Your task to perform on an android device: Install the News app Image 0: 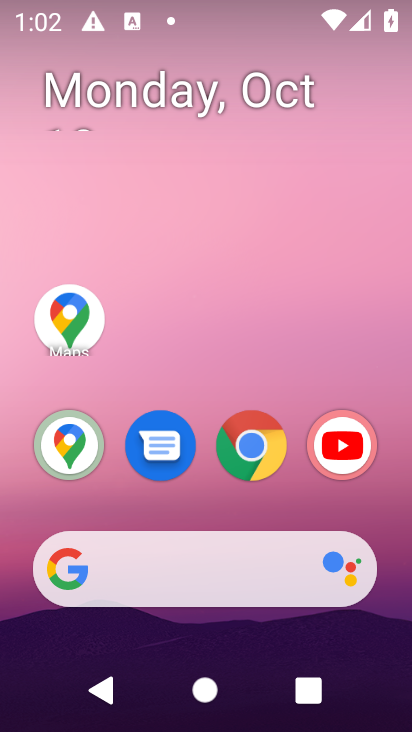
Step 0: drag from (70, 571) to (168, 21)
Your task to perform on an android device: Install the News app Image 1: 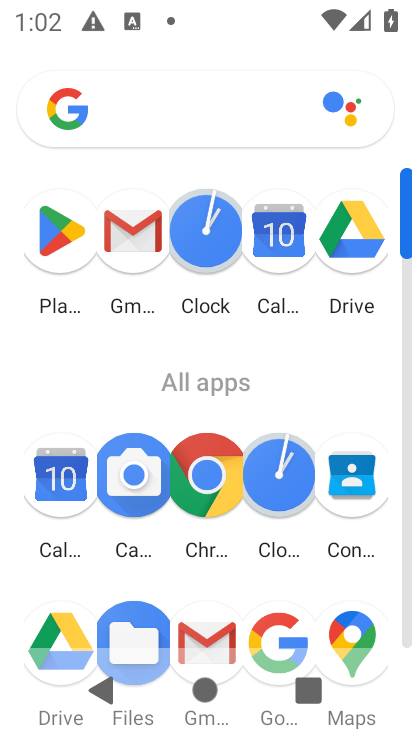
Step 1: drag from (306, 562) to (256, 240)
Your task to perform on an android device: Install the News app Image 2: 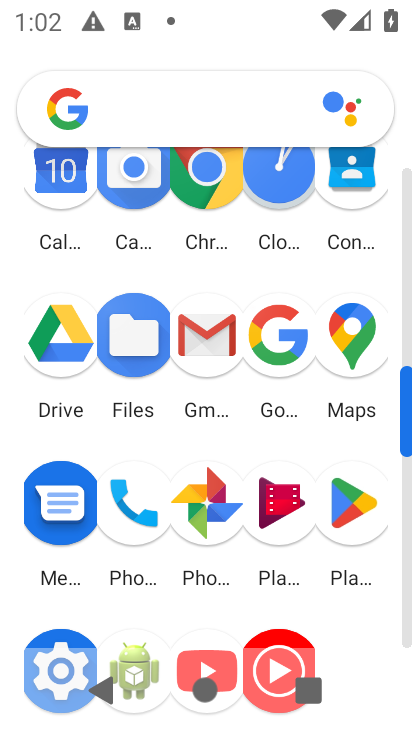
Step 2: click (358, 530)
Your task to perform on an android device: Install the News app Image 3: 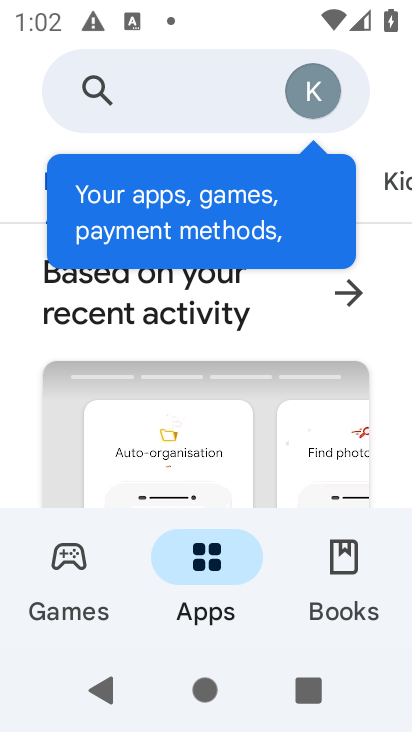
Step 3: click (184, 83)
Your task to perform on an android device: Install the News app Image 4: 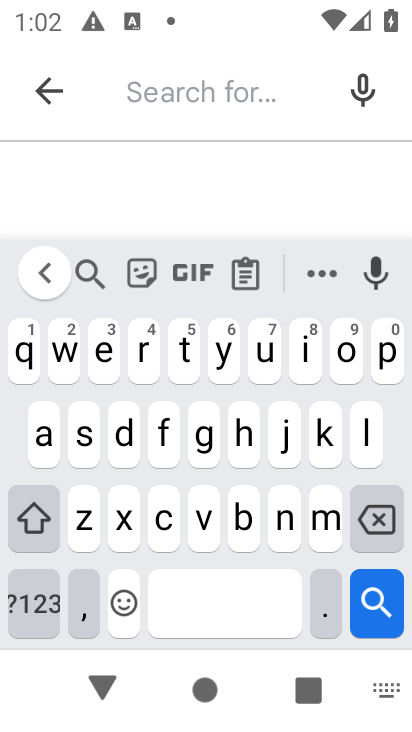
Step 4: click (198, 92)
Your task to perform on an android device: Install the News app Image 5: 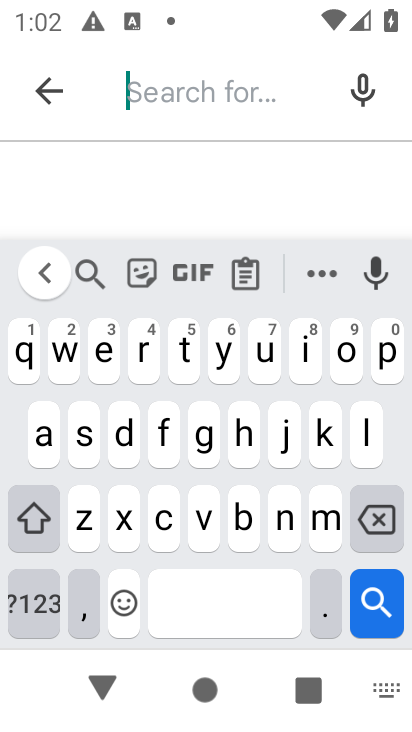
Step 5: type "news app"
Your task to perform on an android device: Install the News app Image 6: 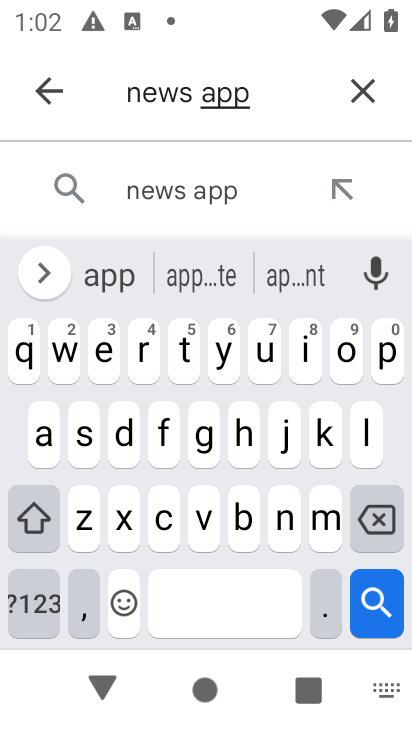
Step 6: click (217, 193)
Your task to perform on an android device: Install the News app Image 7: 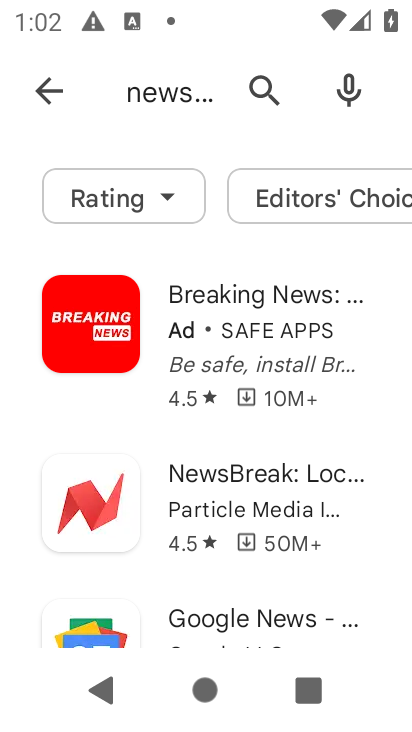
Step 7: click (82, 320)
Your task to perform on an android device: Install the News app Image 8: 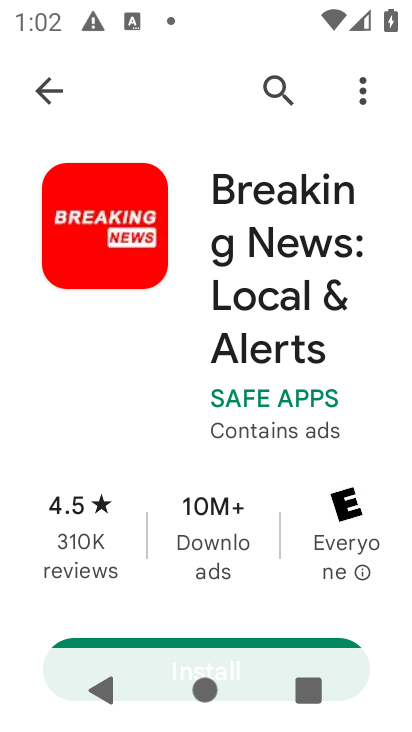
Step 8: drag from (256, 475) to (268, 258)
Your task to perform on an android device: Install the News app Image 9: 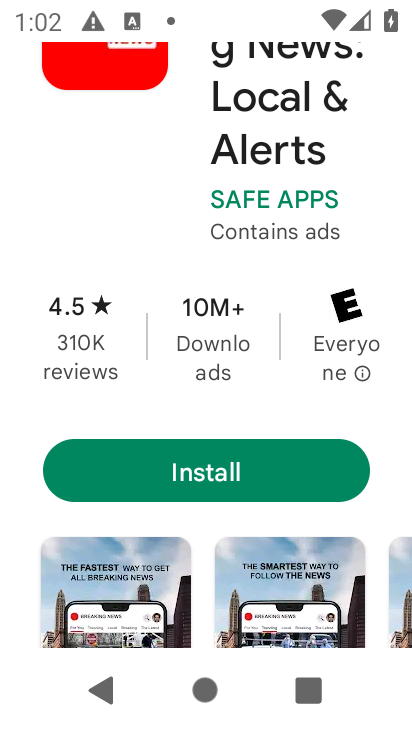
Step 9: click (231, 466)
Your task to perform on an android device: Install the News app Image 10: 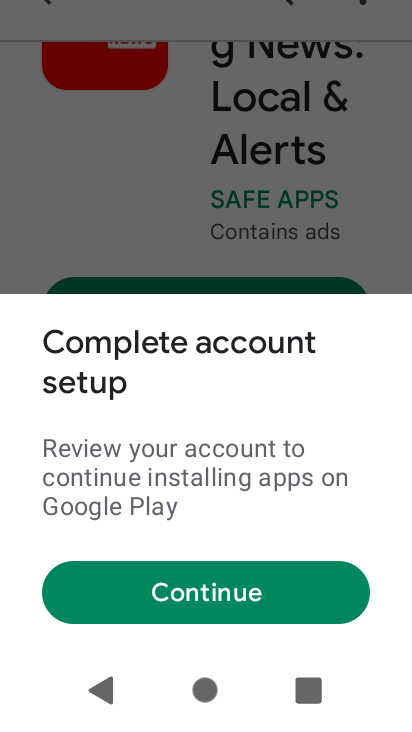
Step 10: click (203, 590)
Your task to perform on an android device: Install the News app Image 11: 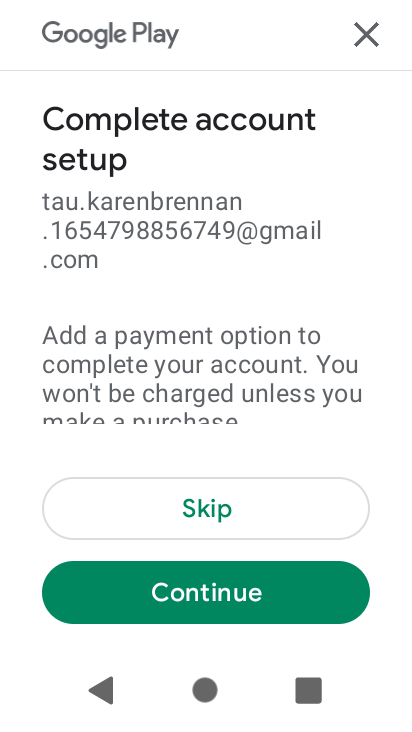
Step 11: click (227, 512)
Your task to perform on an android device: Install the News app Image 12: 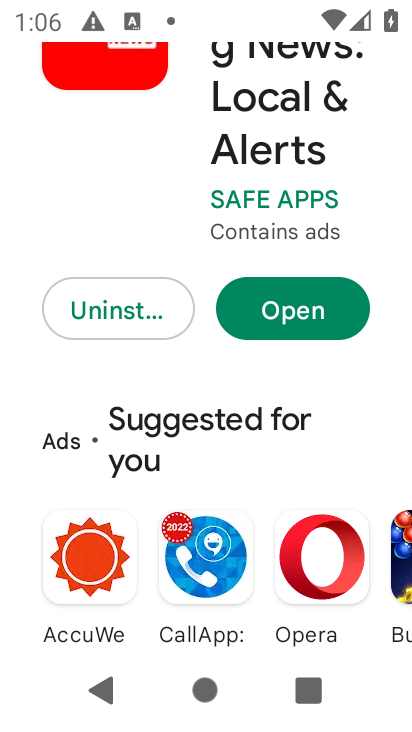
Step 12: click (326, 300)
Your task to perform on an android device: Install the News app Image 13: 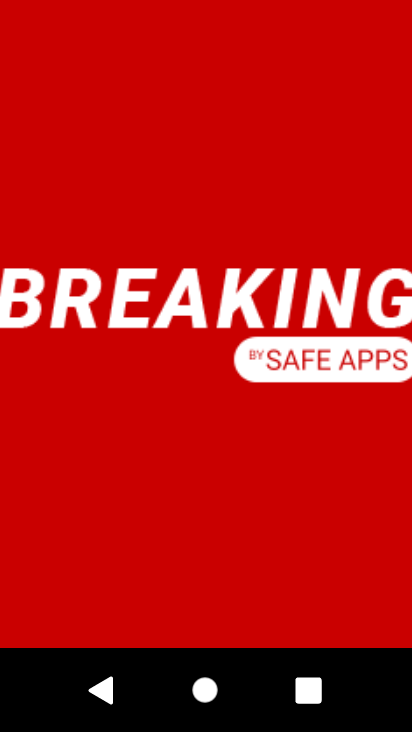
Step 13: task complete